Your task to perform on an android device: Open wifi settings Image 0: 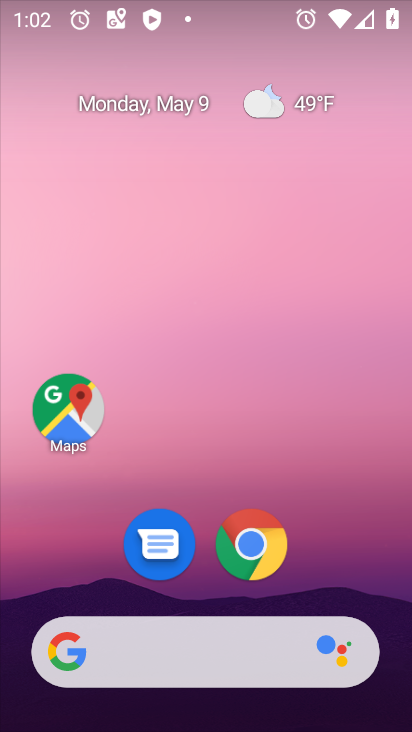
Step 0: drag from (202, 472) to (200, 108)
Your task to perform on an android device: Open wifi settings Image 1: 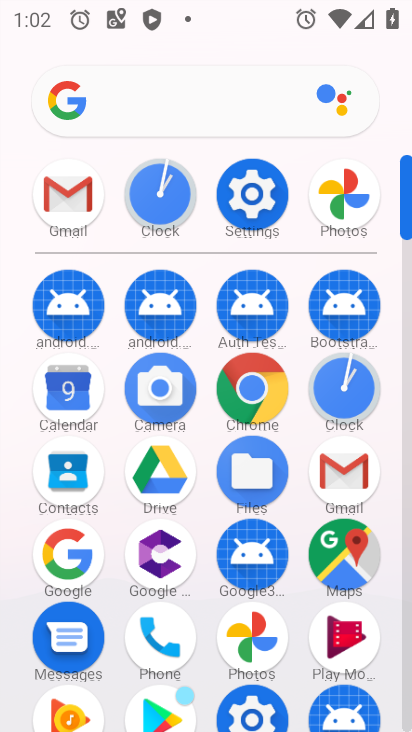
Step 1: click (252, 186)
Your task to perform on an android device: Open wifi settings Image 2: 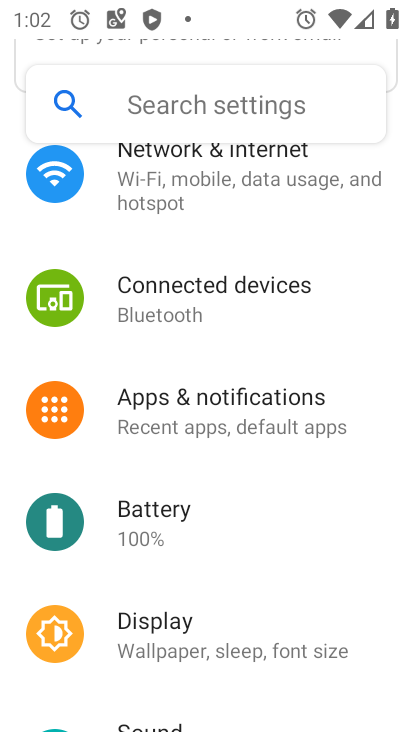
Step 2: click (160, 193)
Your task to perform on an android device: Open wifi settings Image 3: 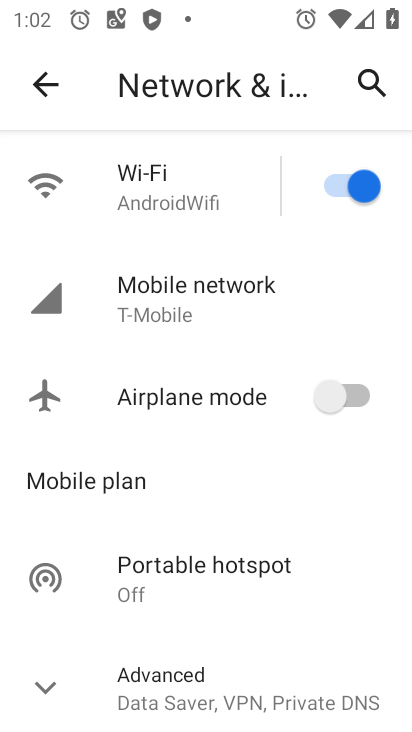
Step 3: click (146, 194)
Your task to perform on an android device: Open wifi settings Image 4: 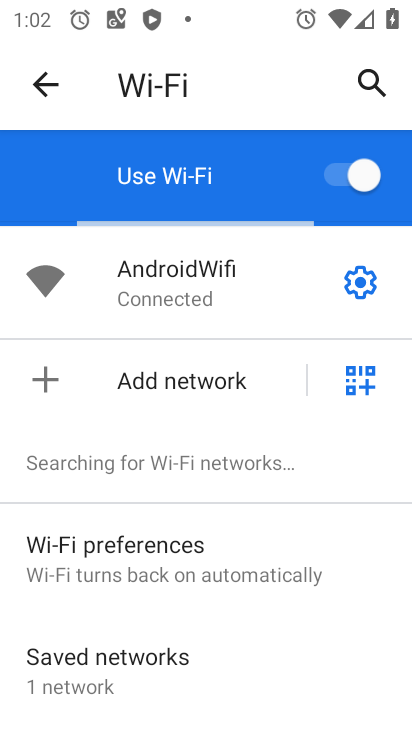
Step 4: task complete